Your task to perform on an android device: turn off priority inbox in the gmail app Image 0: 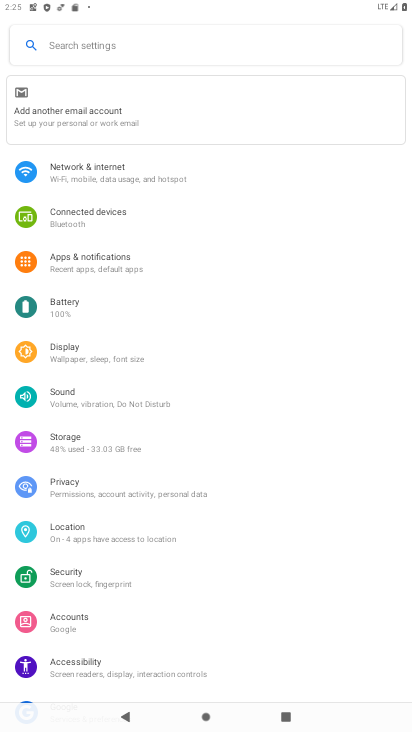
Step 0: press home button
Your task to perform on an android device: turn off priority inbox in the gmail app Image 1: 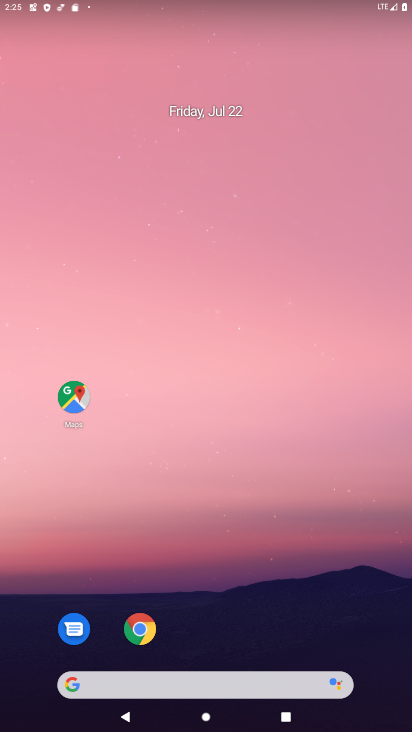
Step 1: drag from (172, 688) to (161, 281)
Your task to perform on an android device: turn off priority inbox in the gmail app Image 2: 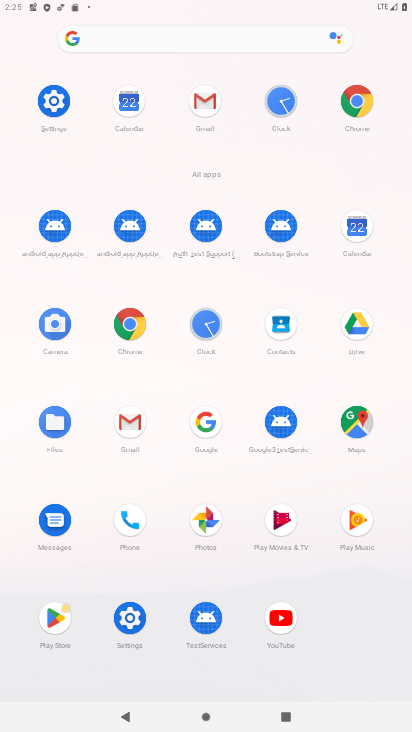
Step 2: click (127, 422)
Your task to perform on an android device: turn off priority inbox in the gmail app Image 3: 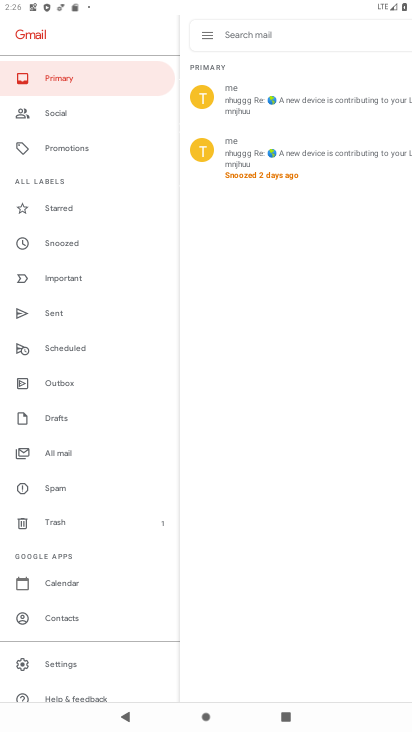
Step 3: click (71, 670)
Your task to perform on an android device: turn off priority inbox in the gmail app Image 4: 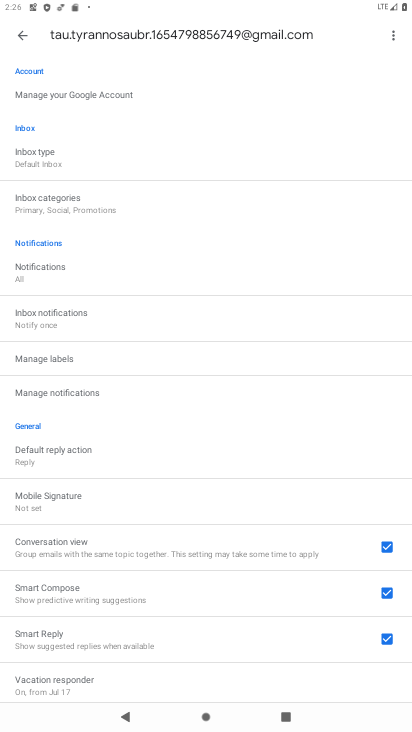
Step 4: click (47, 148)
Your task to perform on an android device: turn off priority inbox in the gmail app Image 5: 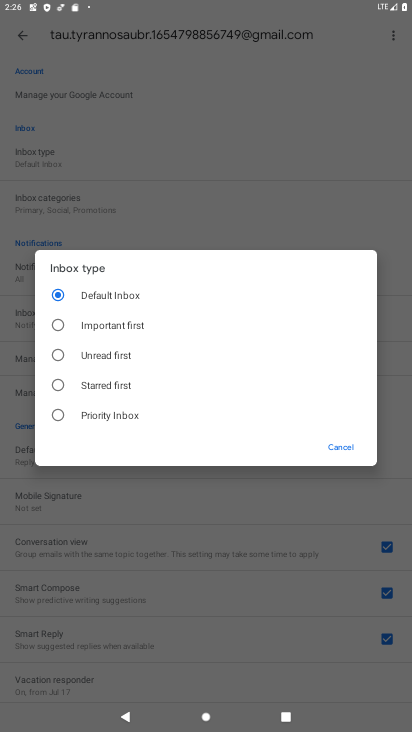
Step 5: click (114, 292)
Your task to perform on an android device: turn off priority inbox in the gmail app Image 6: 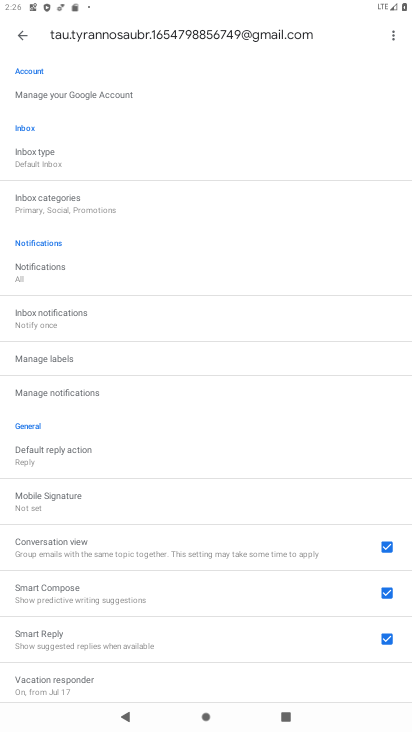
Step 6: task complete